Your task to perform on an android device: Open ESPN.com Image 0: 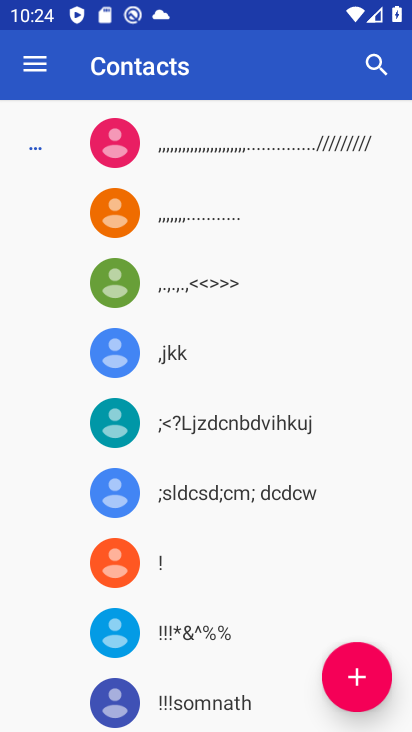
Step 0: press home button
Your task to perform on an android device: Open ESPN.com Image 1: 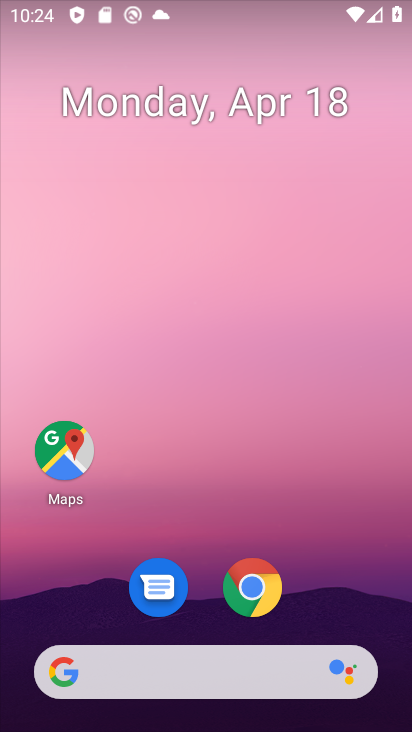
Step 1: click (275, 588)
Your task to perform on an android device: Open ESPN.com Image 2: 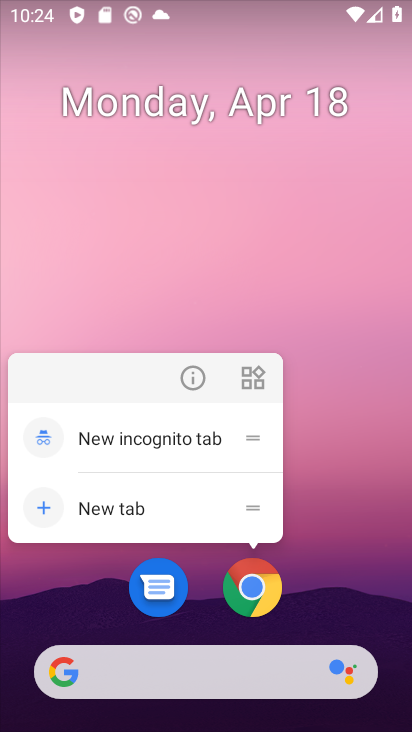
Step 2: click (270, 583)
Your task to perform on an android device: Open ESPN.com Image 3: 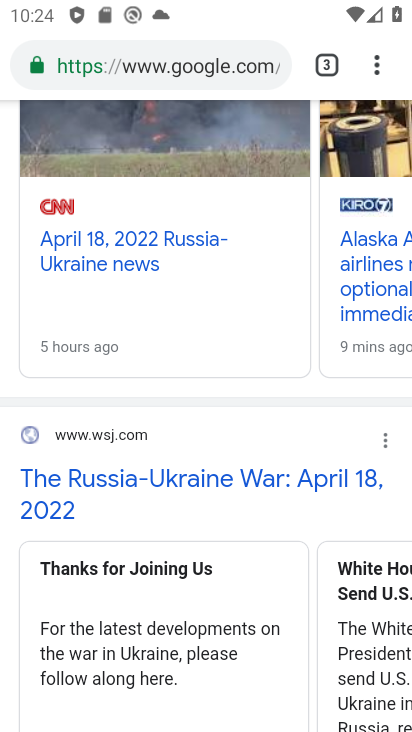
Step 3: click (335, 68)
Your task to perform on an android device: Open ESPN.com Image 4: 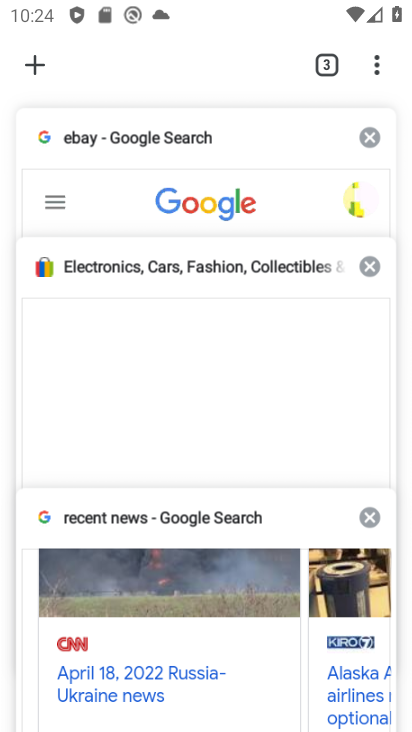
Step 4: click (35, 57)
Your task to perform on an android device: Open ESPN.com Image 5: 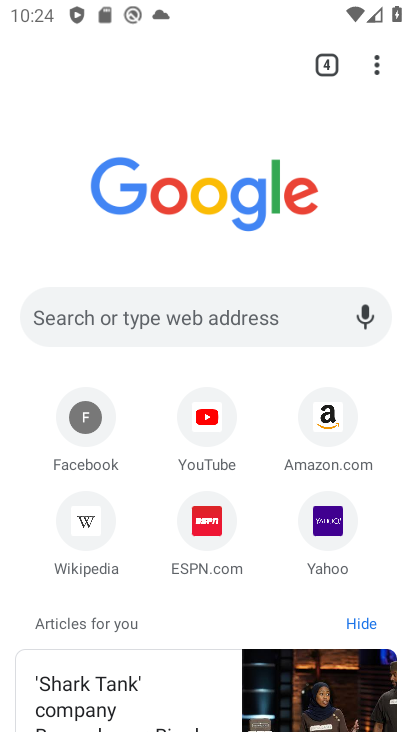
Step 5: click (188, 319)
Your task to perform on an android device: Open ESPN.com Image 6: 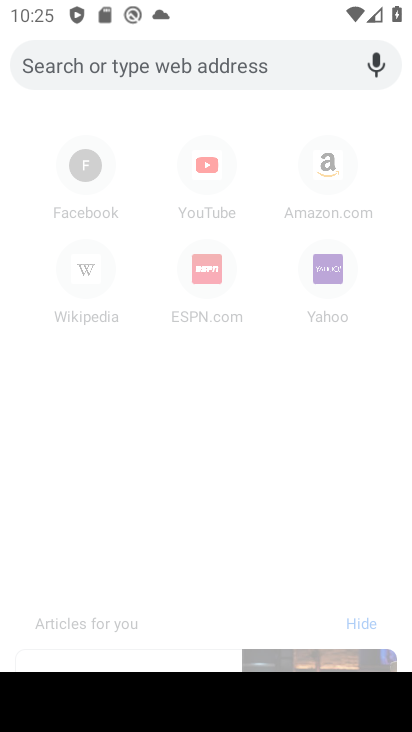
Step 6: type "espn.com"
Your task to perform on an android device: Open ESPN.com Image 7: 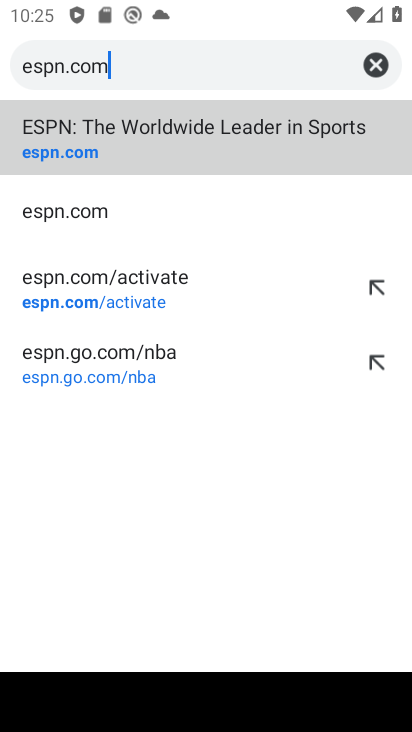
Step 7: click (46, 213)
Your task to perform on an android device: Open ESPN.com Image 8: 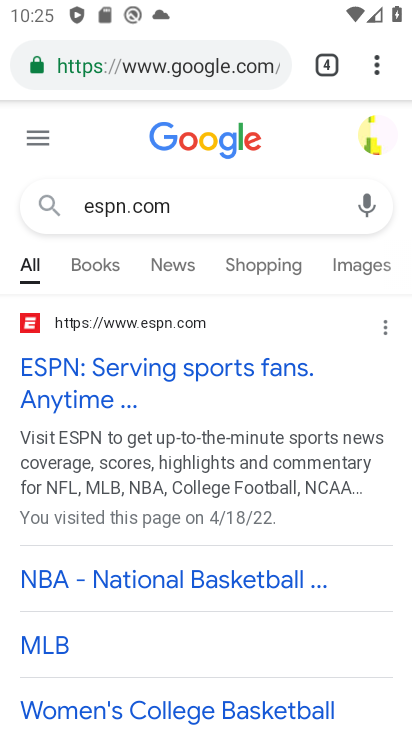
Step 8: task complete